Your task to perform on an android device: clear history in the chrome app Image 0: 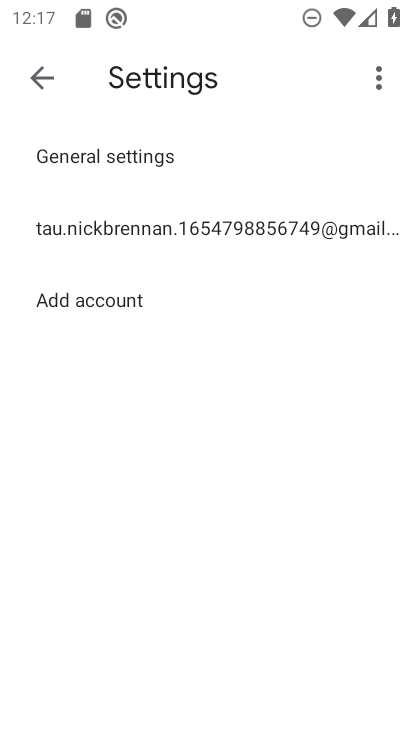
Step 0: press home button
Your task to perform on an android device: clear history in the chrome app Image 1: 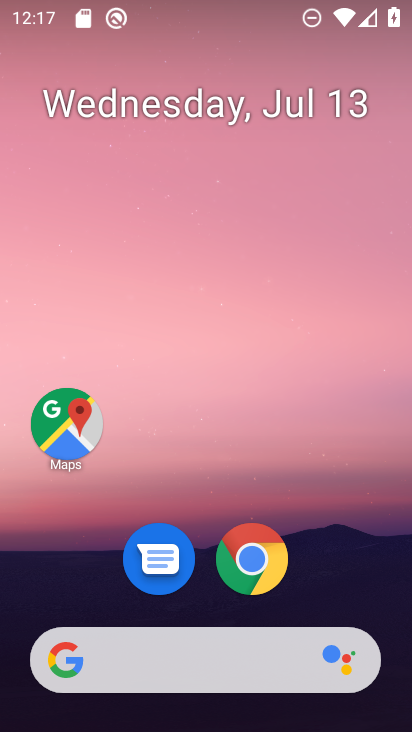
Step 1: drag from (214, 659) to (230, 0)
Your task to perform on an android device: clear history in the chrome app Image 2: 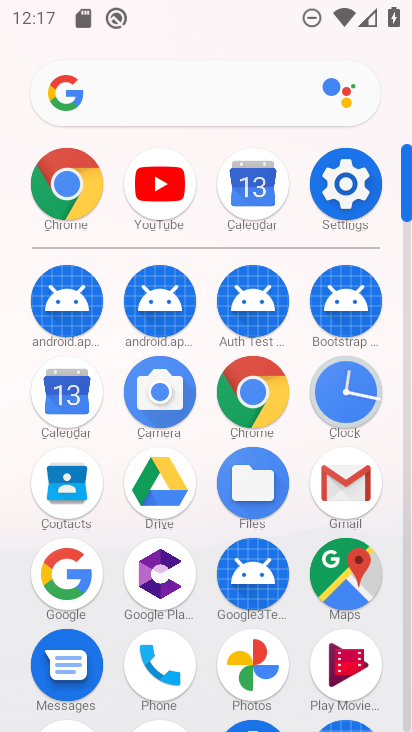
Step 2: click (269, 395)
Your task to perform on an android device: clear history in the chrome app Image 3: 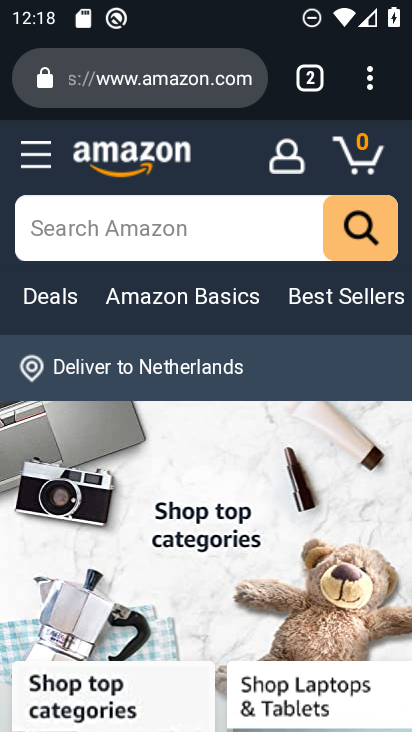
Step 3: click (387, 91)
Your task to perform on an android device: clear history in the chrome app Image 4: 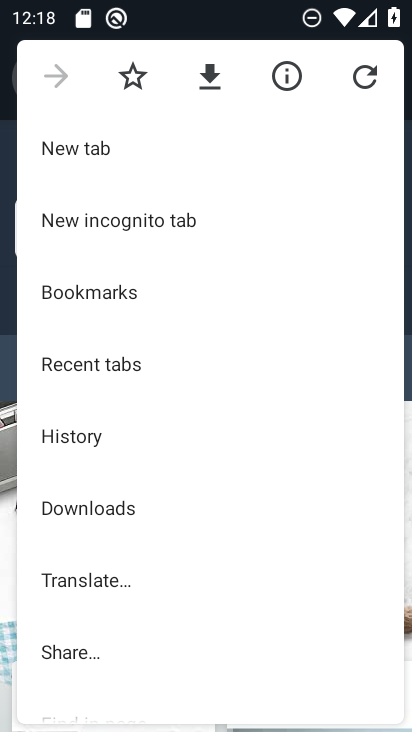
Step 4: click (98, 442)
Your task to perform on an android device: clear history in the chrome app Image 5: 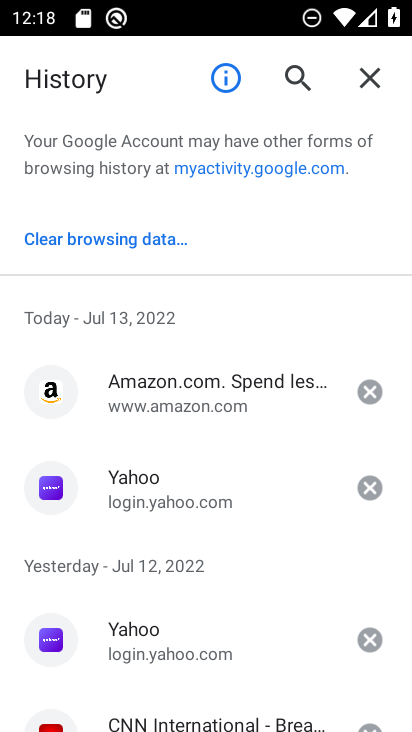
Step 5: click (101, 255)
Your task to perform on an android device: clear history in the chrome app Image 6: 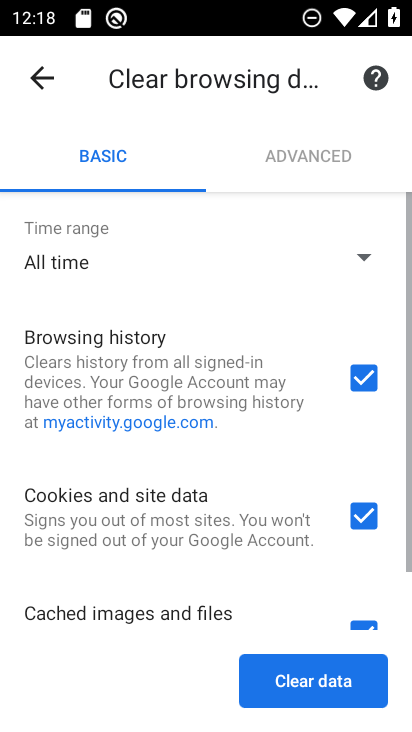
Step 6: click (360, 622)
Your task to perform on an android device: clear history in the chrome app Image 7: 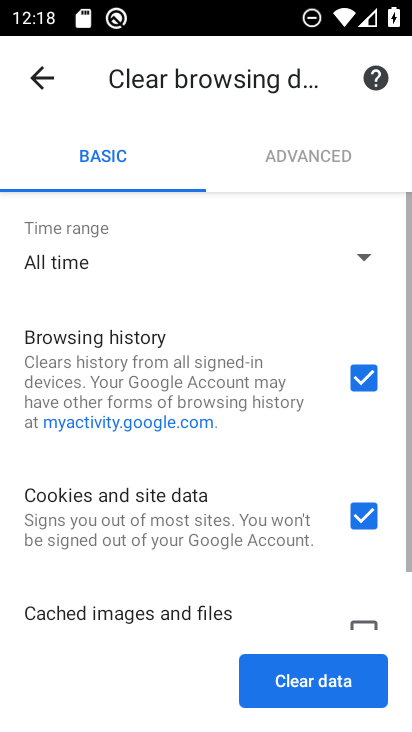
Step 7: click (374, 517)
Your task to perform on an android device: clear history in the chrome app Image 8: 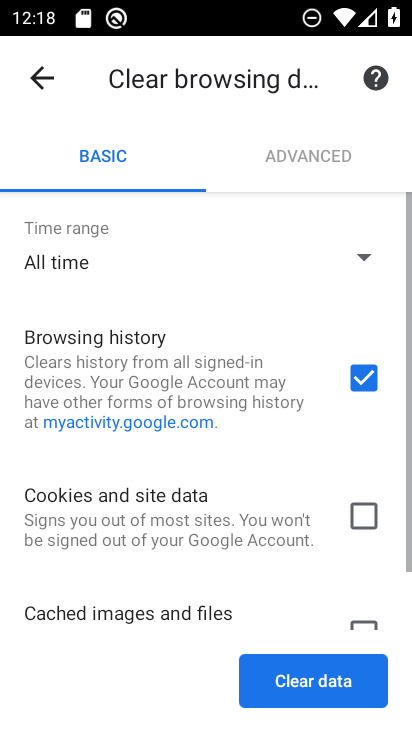
Step 8: click (306, 691)
Your task to perform on an android device: clear history in the chrome app Image 9: 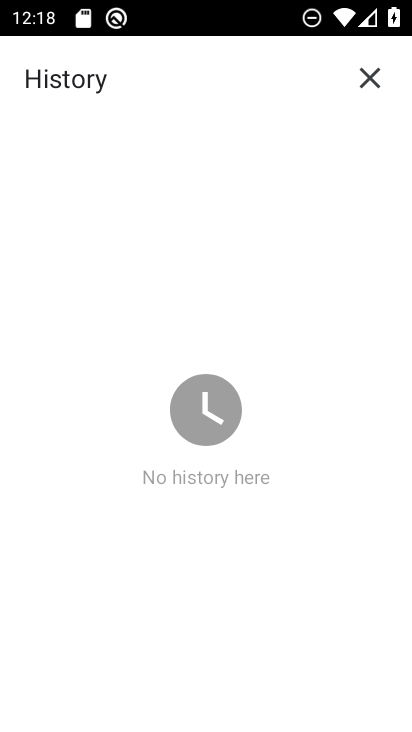
Step 9: task complete